Your task to perform on an android device: Turn on the flashlight Image 0: 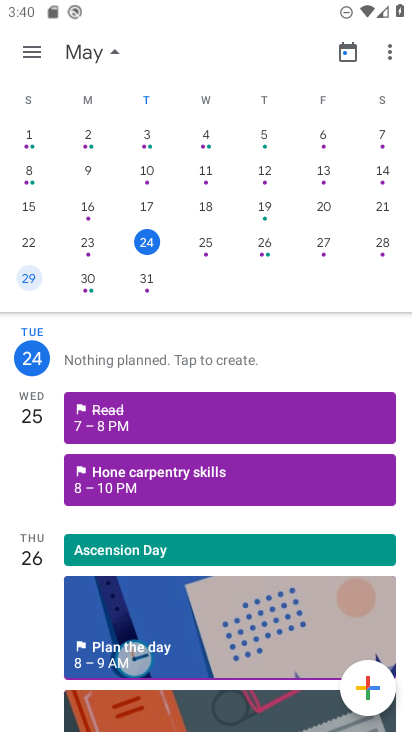
Step 0: press home button
Your task to perform on an android device: Turn on the flashlight Image 1: 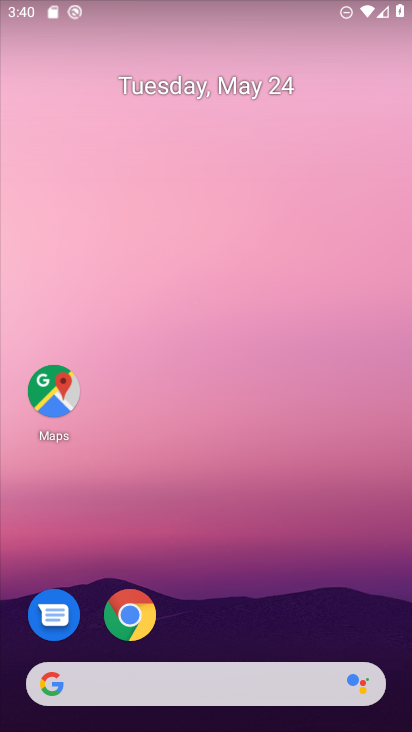
Step 1: task complete